Your task to perform on an android device: Open location settings Image 0: 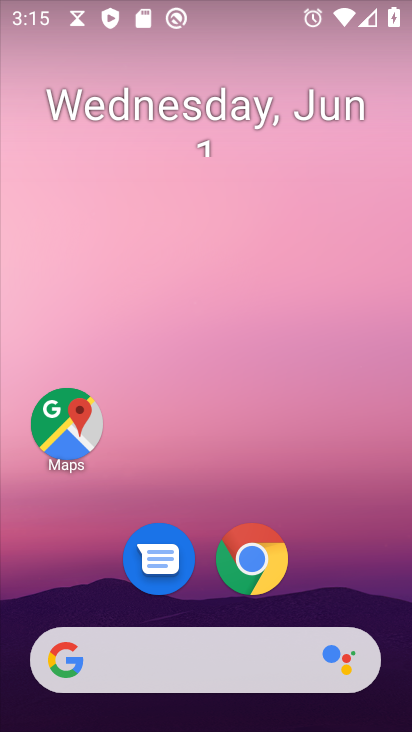
Step 0: drag from (318, 587) to (303, 52)
Your task to perform on an android device: Open location settings Image 1: 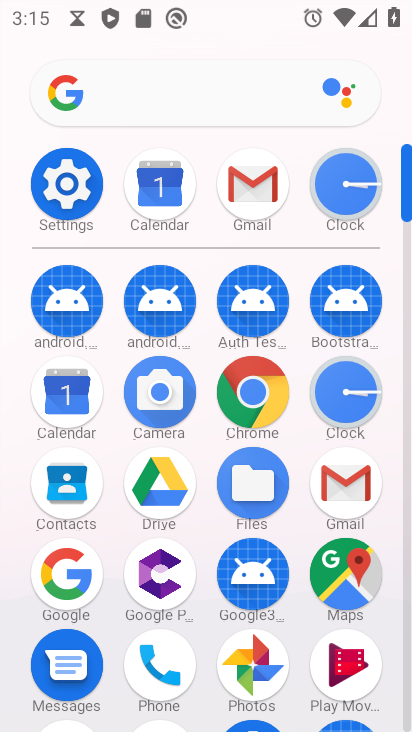
Step 1: click (63, 187)
Your task to perform on an android device: Open location settings Image 2: 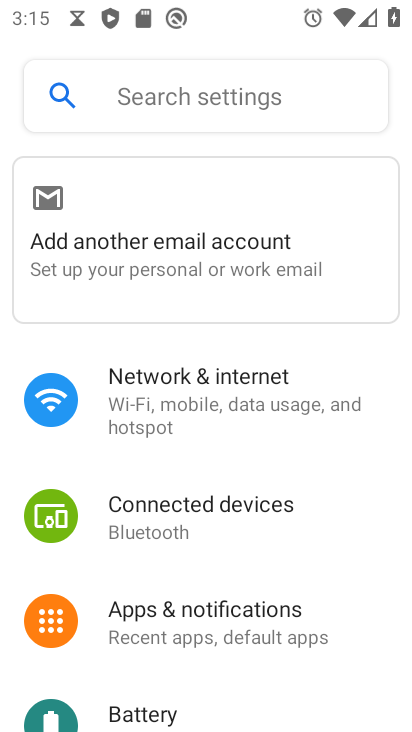
Step 2: drag from (123, 667) to (91, 248)
Your task to perform on an android device: Open location settings Image 3: 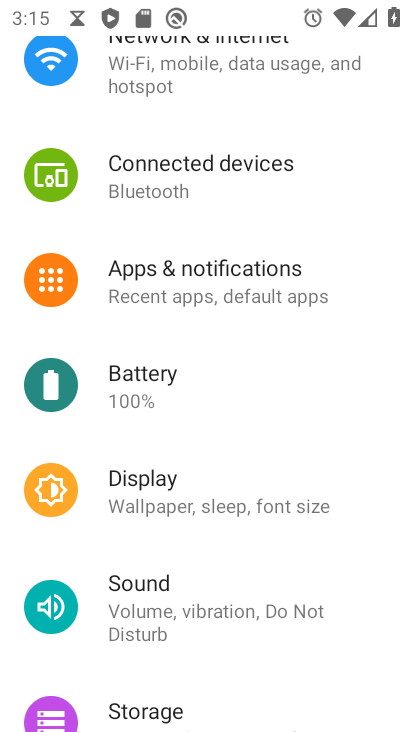
Step 3: drag from (128, 606) to (131, 177)
Your task to perform on an android device: Open location settings Image 4: 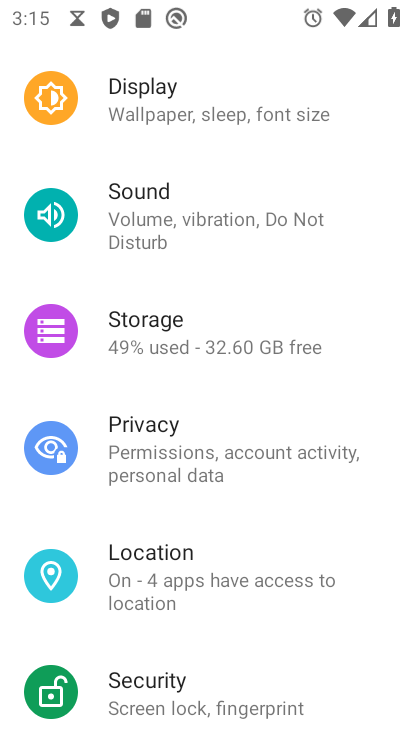
Step 4: click (191, 579)
Your task to perform on an android device: Open location settings Image 5: 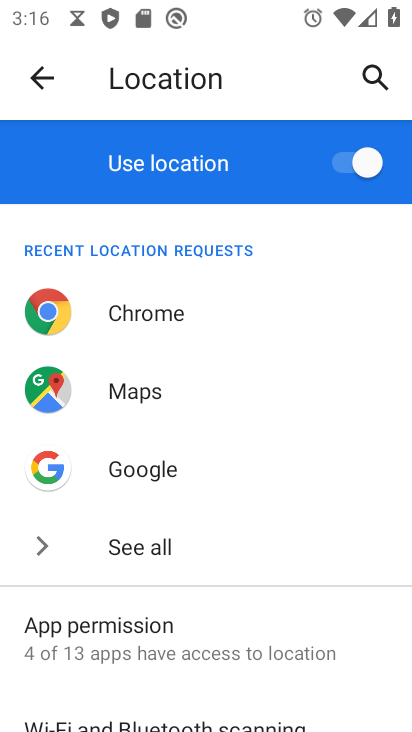
Step 5: task complete